Your task to perform on an android device: toggle javascript in the chrome app Image 0: 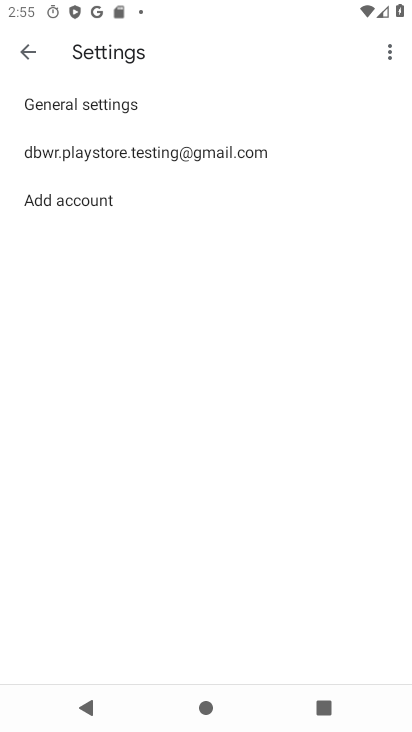
Step 0: press back button
Your task to perform on an android device: toggle javascript in the chrome app Image 1: 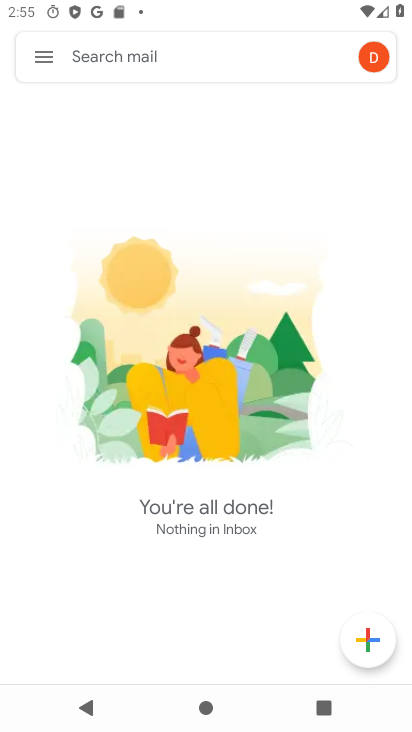
Step 1: press back button
Your task to perform on an android device: toggle javascript in the chrome app Image 2: 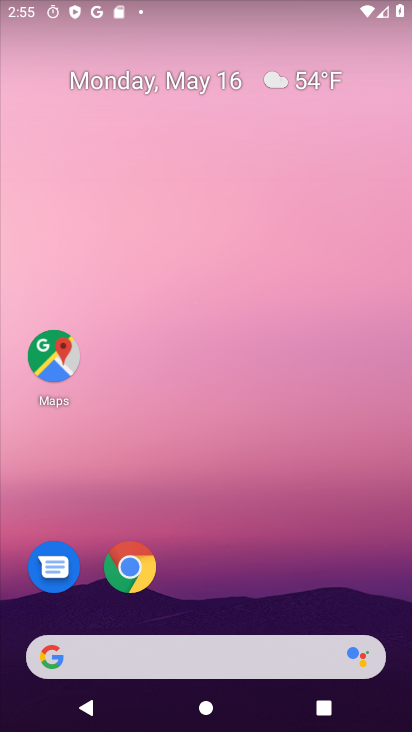
Step 2: click (129, 566)
Your task to perform on an android device: toggle javascript in the chrome app Image 3: 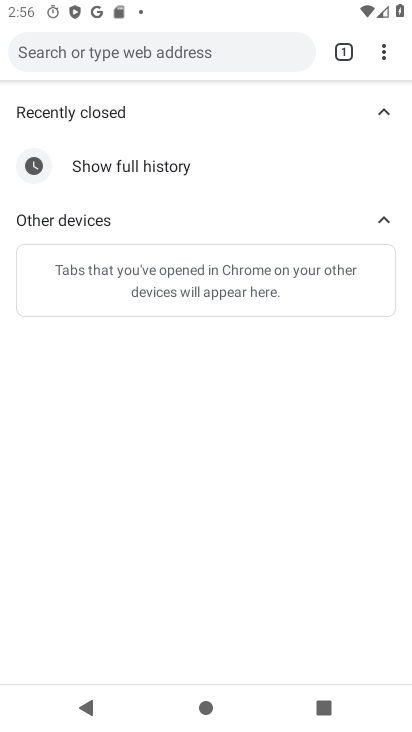
Step 3: click (384, 52)
Your task to perform on an android device: toggle javascript in the chrome app Image 4: 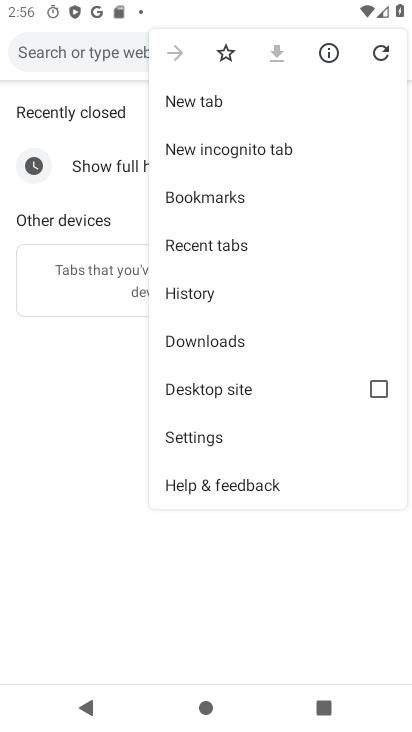
Step 4: click (207, 437)
Your task to perform on an android device: toggle javascript in the chrome app Image 5: 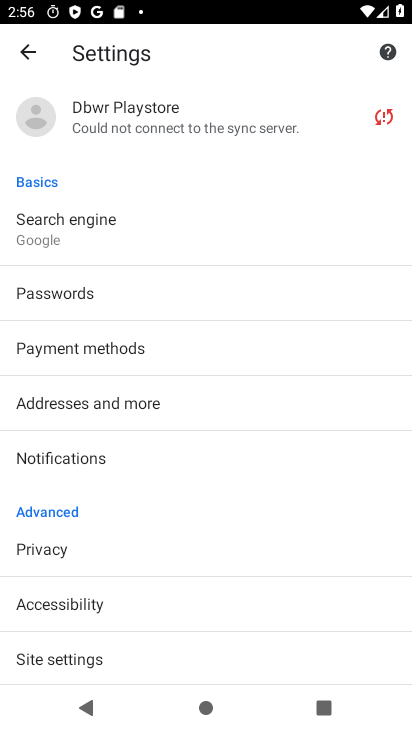
Step 5: drag from (123, 605) to (226, 478)
Your task to perform on an android device: toggle javascript in the chrome app Image 6: 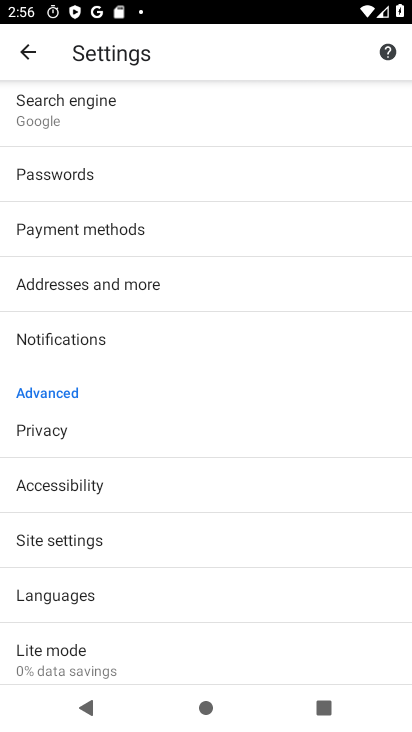
Step 6: drag from (146, 613) to (186, 560)
Your task to perform on an android device: toggle javascript in the chrome app Image 7: 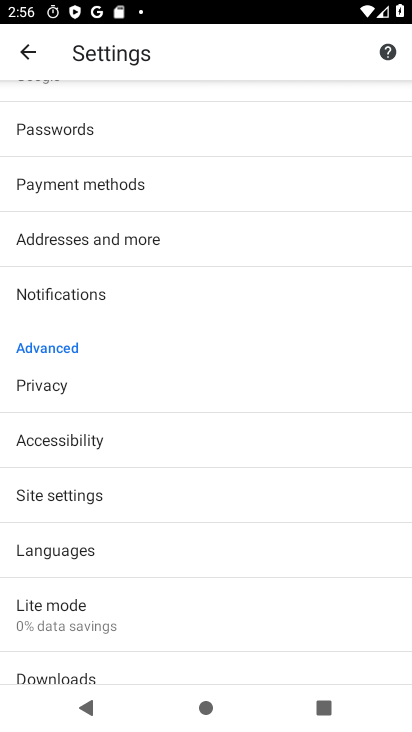
Step 7: drag from (145, 588) to (190, 513)
Your task to perform on an android device: toggle javascript in the chrome app Image 8: 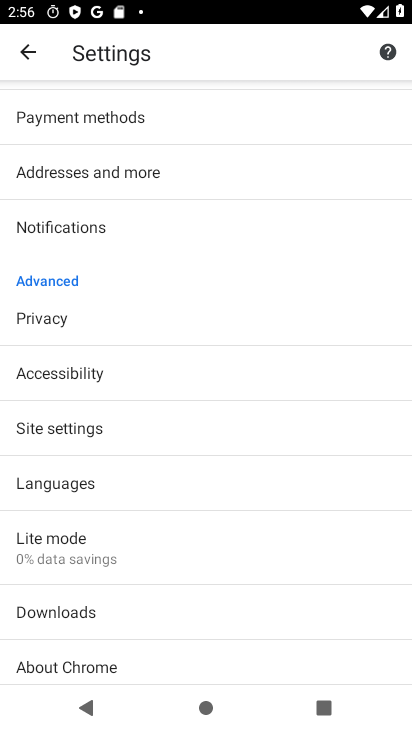
Step 8: click (80, 435)
Your task to perform on an android device: toggle javascript in the chrome app Image 9: 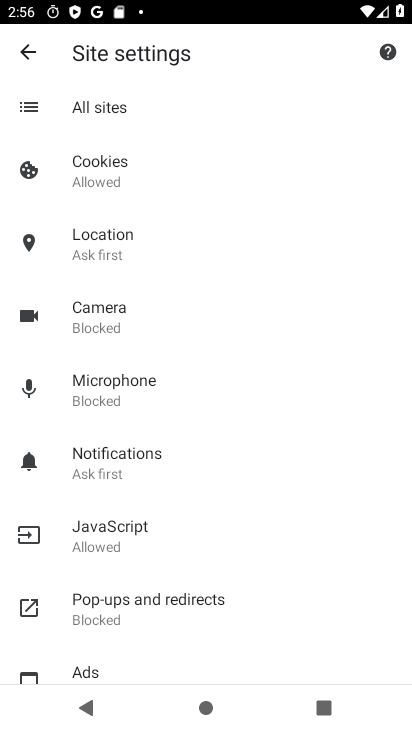
Step 9: drag from (152, 550) to (144, 479)
Your task to perform on an android device: toggle javascript in the chrome app Image 10: 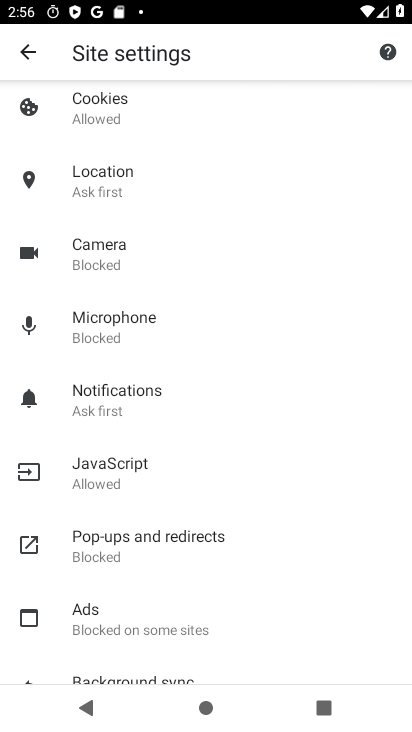
Step 10: drag from (148, 511) to (170, 426)
Your task to perform on an android device: toggle javascript in the chrome app Image 11: 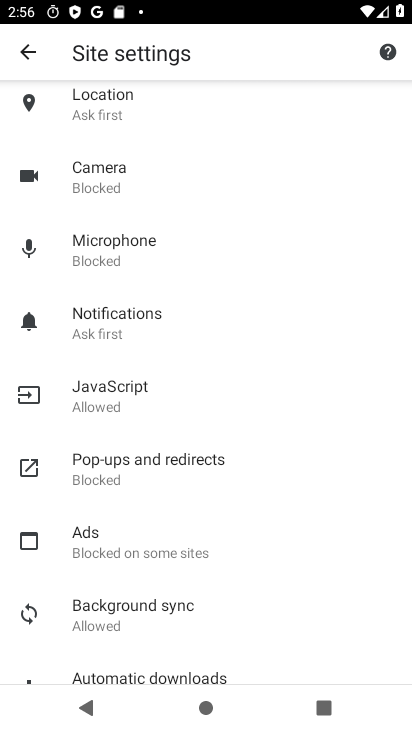
Step 11: click (125, 399)
Your task to perform on an android device: toggle javascript in the chrome app Image 12: 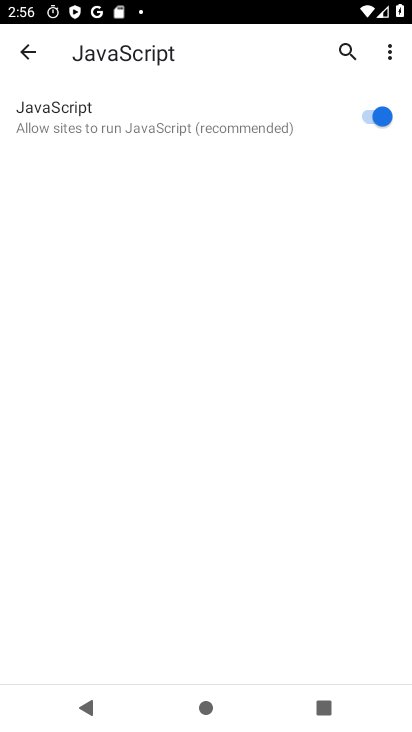
Step 12: click (386, 112)
Your task to perform on an android device: toggle javascript in the chrome app Image 13: 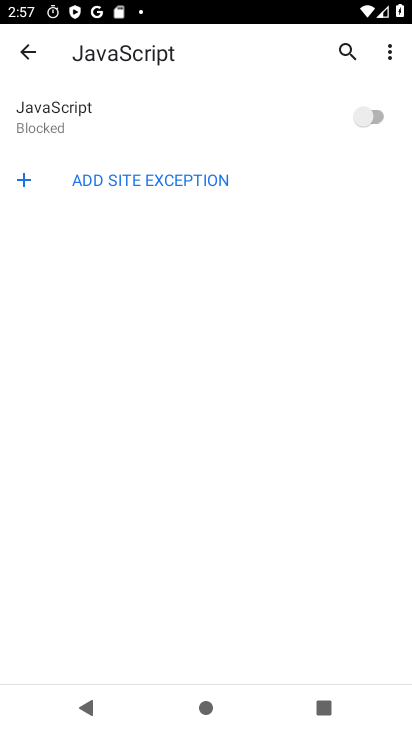
Step 13: task complete